Your task to perform on an android device: Is it going to rain this weekend? Image 0: 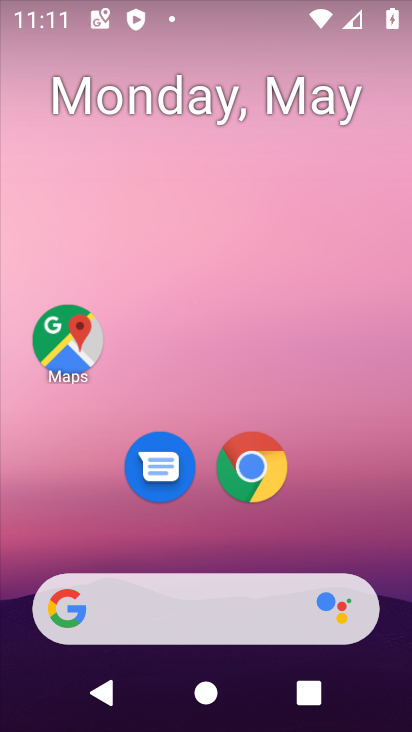
Step 0: click (189, 607)
Your task to perform on an android device: Is it going to rain this weekend? Image 1: 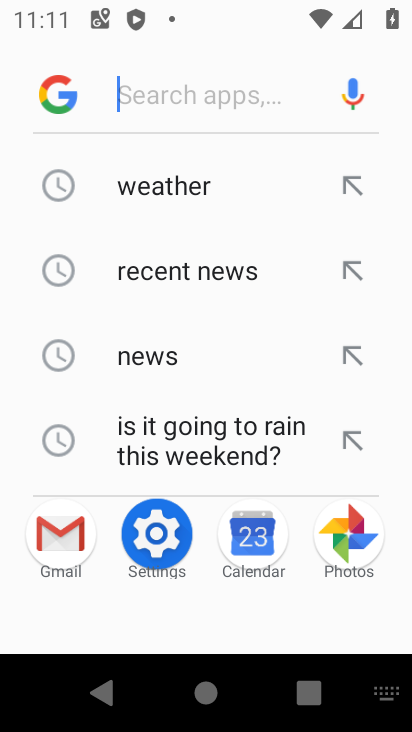
Step 1: type "is it going to rain this weekend"
Your task to perform on an android device: Is it going to rain this weekend? Image 2: 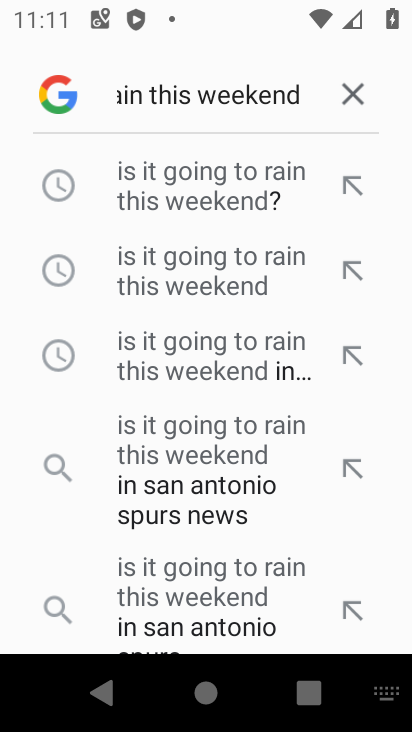
Step 2: click (211, 206)
Your task to perform on an android device: Is it going to rain this weekend? Image 3: 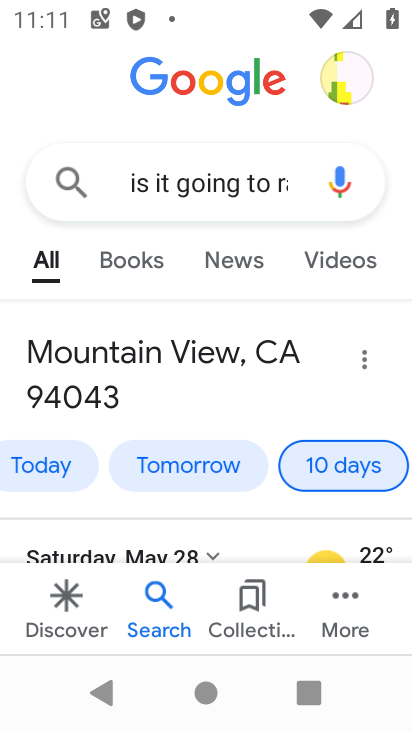
Step 3: task complete